Your task to perform on an android device: Open Reddit.com Image 0: 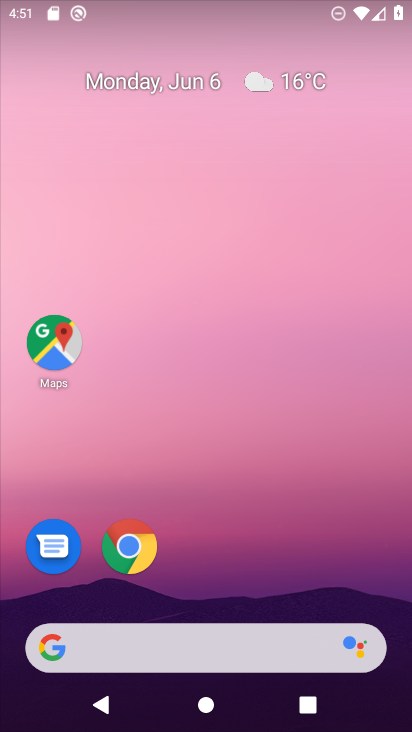
Step 0: click (239, 503)
Your task to perform on an android device: Open Reddit.com Image 1: 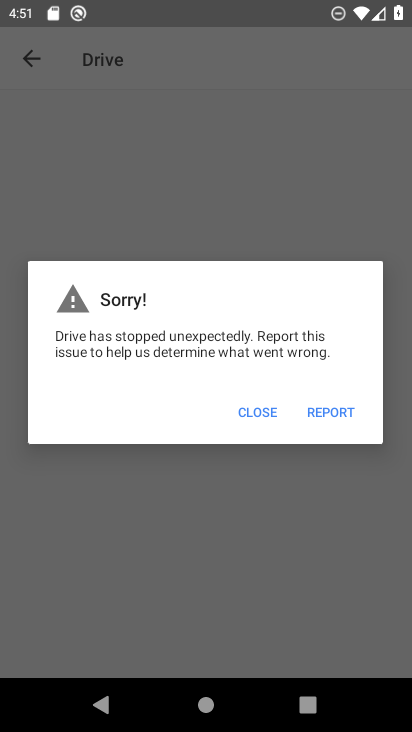
Step 1: press home button
Your task to perform on an android device: Open Reddit.com Image 2: 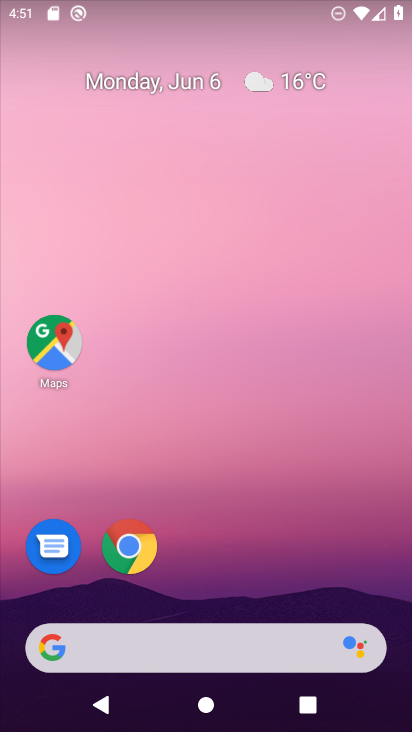
Step 2: drag from (229, 602) to (143, 4)
Your task to perform on an android device: Open Reddit.com Image 3: 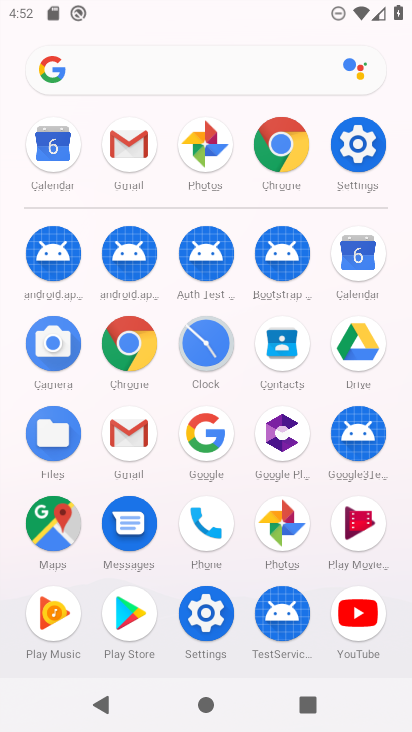
Step 3: click (151, 345)
Your task to perform on an android device: Open Reddit.com Image 4: 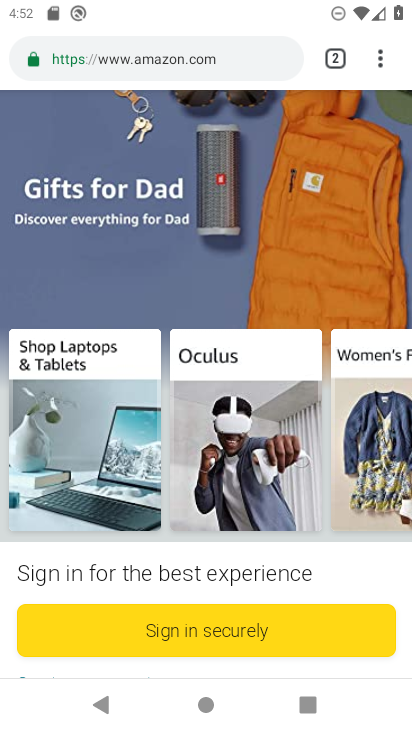
Step 4: click (345, 58)
Your task to perform on an android device: Open Reddit.com Image 5: 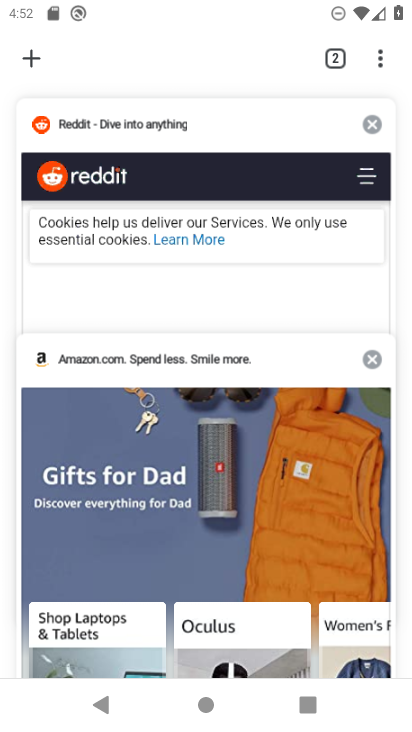
Step 5: click (60, 182)
Your task to perform on an android device: Open Reddit.com Image 6: 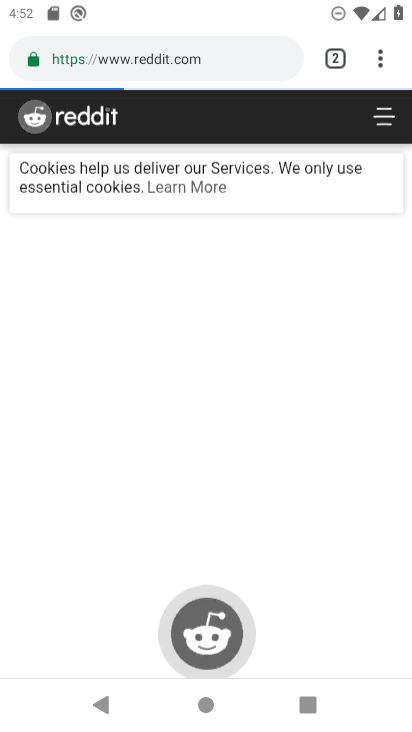
Step 6: task complete